Your task to perform on an android device: When is my next appointment? Image 0: 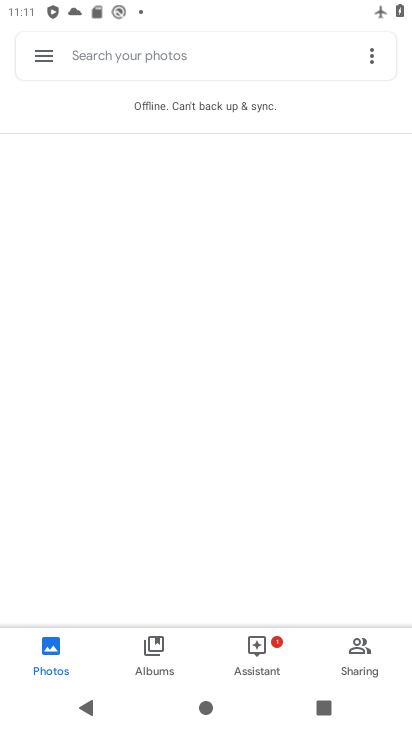
Step 0: press home button
Your task to perform on an android device: When is my next appointment? Image 1: 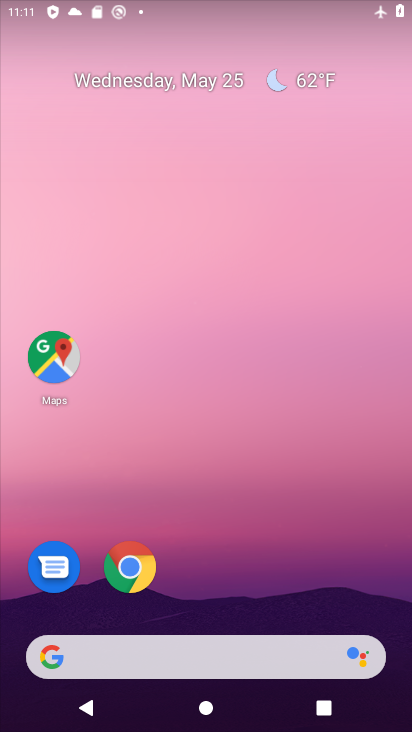
Step 1: drag from (354, 601) to (322, 33)
Your task to perform on an android device: When is my next appointment? Image 2: 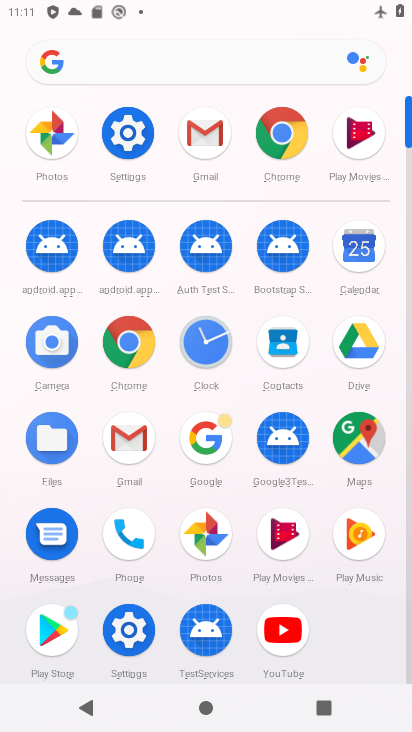
Step 2: click (360, 251)
Your task to perform on an android device: When is my next appointment? Image 3: 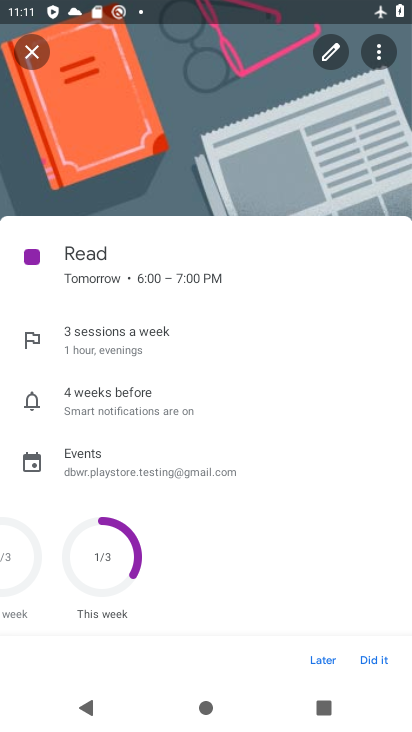
Step 3: task complete